Your task to perform on an android device: toggle wifi Image 0: 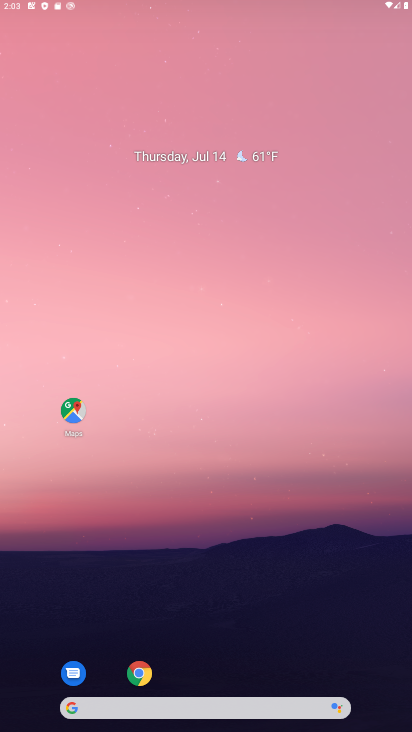
Step 0: drag from (188, 660) to (35, 78)
Your task to perform on an android device: toggle wifi Image 1: 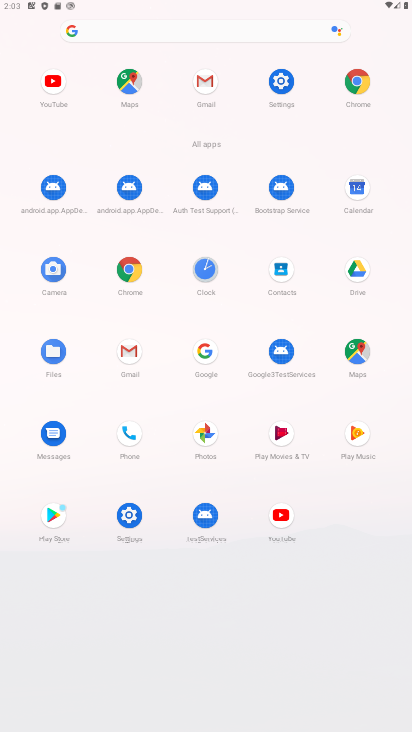
Step 1: click (290, 80)
Your task to perform on an android device: toggle wifi Image 2: 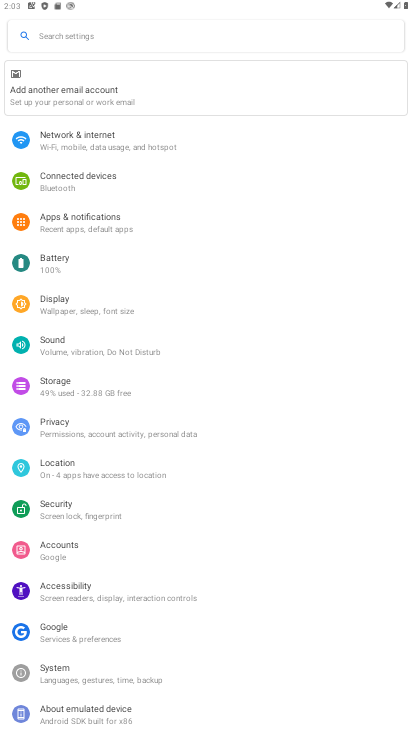
Step 2: click (86, 150)
Your task to perform on an android device: toggle wifi Image 3: 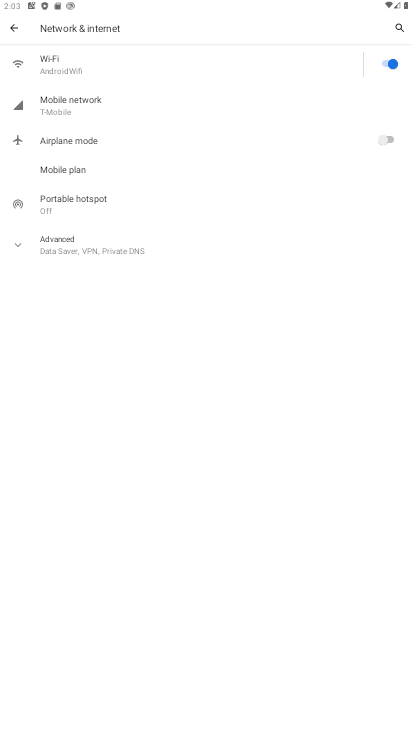
Step 3: click (384, 68)
Your task to perform on an android device: toggle wifi Image 4: 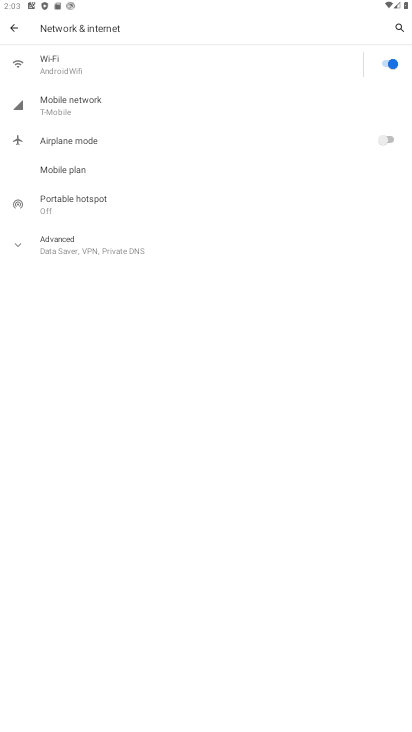
Step 4: click (384, 68)
Your task to perform on an android device: toggle wifi Image 5: 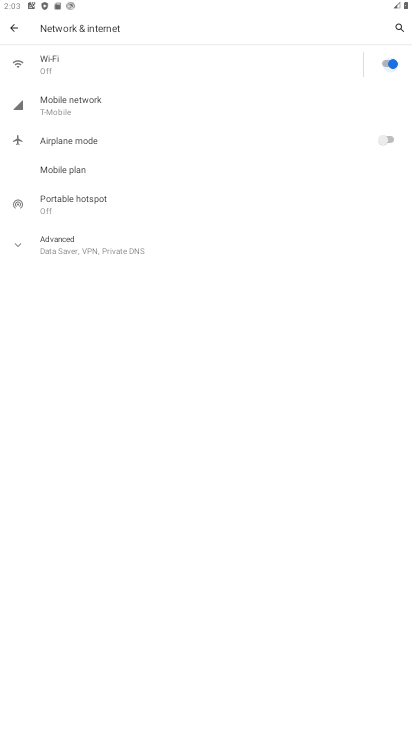
Step 5: click (384, 68)
Your task to perform on an android device: toggle wifi Image 6: 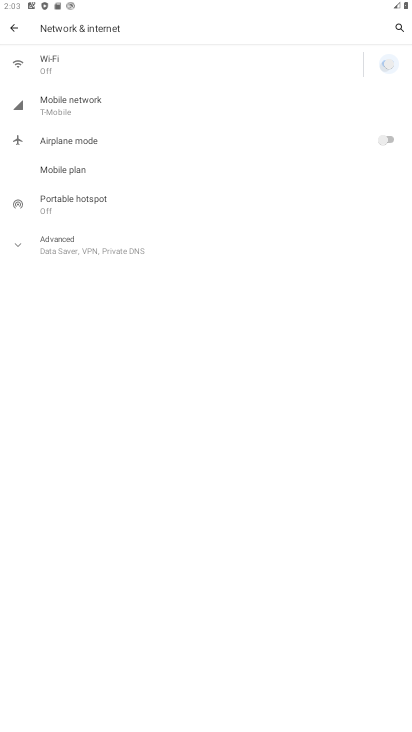
Step 6: click (384, 68)
Your task to perform on an android device: toggle wifi Image 7: 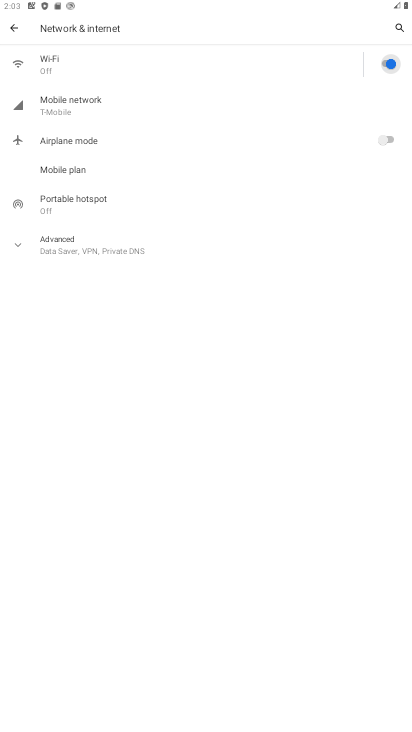
Step 7: click (384, 68)
Your task to perform on an android device: toggle wifi Image 8: 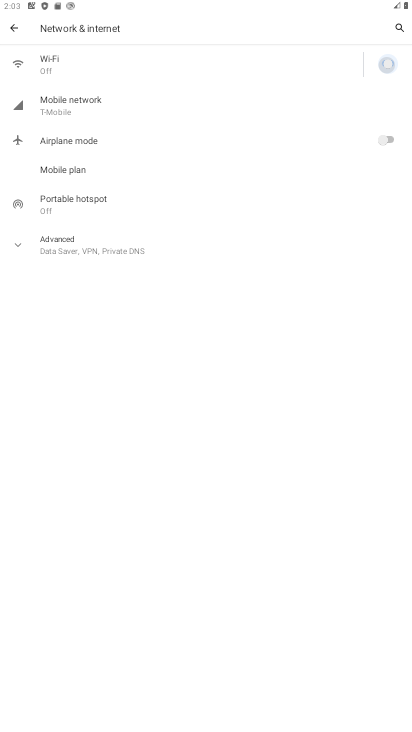
Step 8: click (384, 68)
Your task to perform on an android device: toggle wifi Image 9: 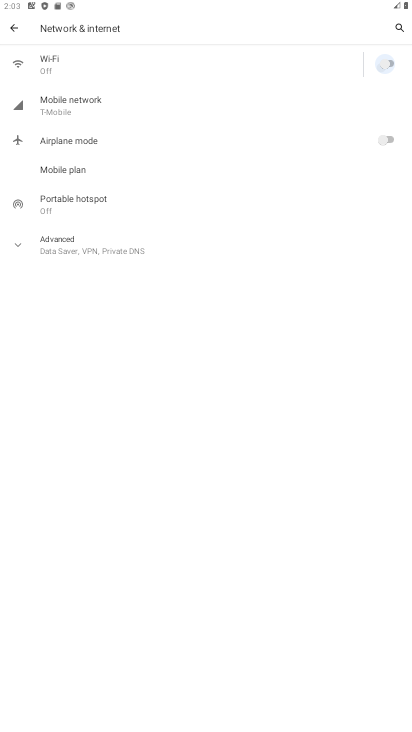
Step 9: click (384, 68)
Your task to perform on an android device: toggle wifi Image 10: 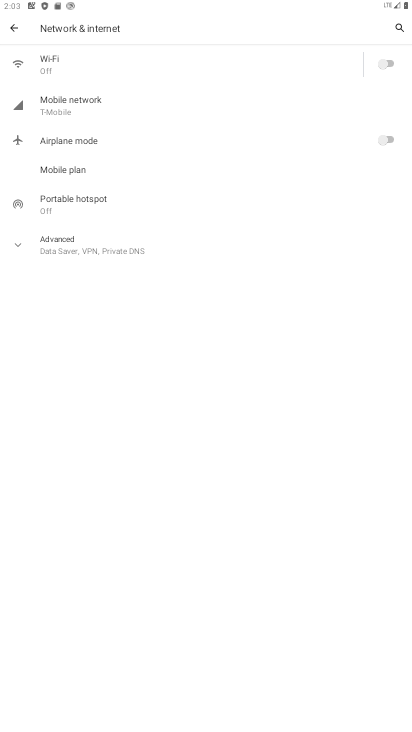
Step 10: click (390, 63)
Your task to perform on an android device: toggle wifi Image 11: 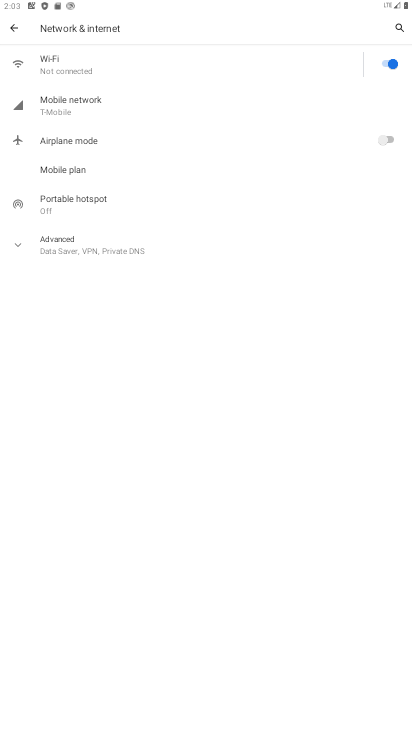
Step 11: task complete